Your task to perform on an android device: Open the calendar app, open the side menu, and click the "Day" option Image 0: 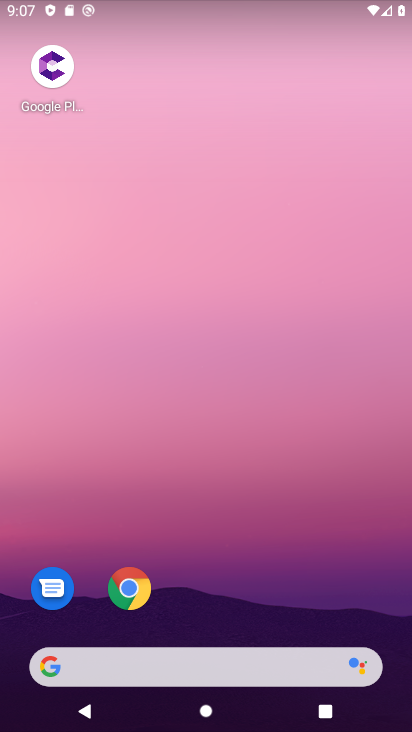
Step 0: drag from (245, 599) to (216, 103)
Your task to perform on an android device: Open the calendar app, open the side menu, and click the "Day" option Image 1: 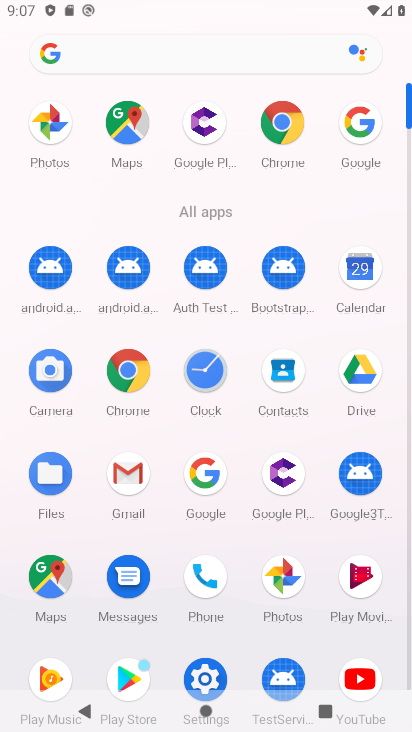
Step 1: click (362, 271)
Your task to perform on an android device: Open the calendar app, open the side menu, and click the "Day" option Image 2: 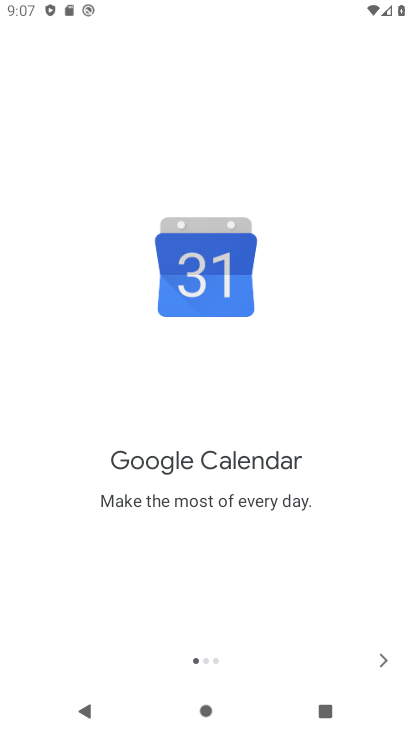
Step 2: click (384, 663)
Your task to perform on an android device: Open the calendar app, open the side menu, and click the "Day" option Image 3: 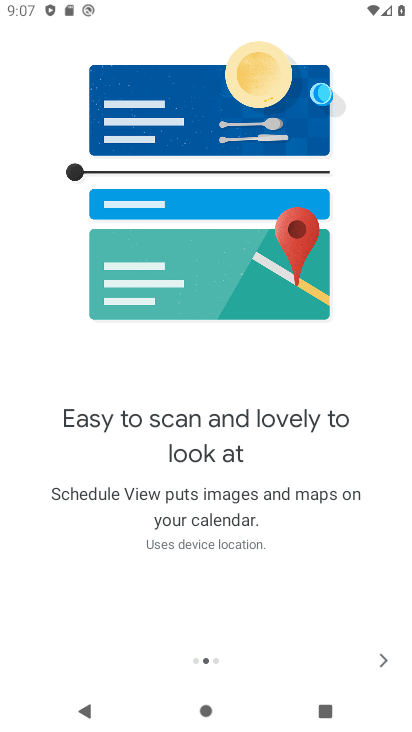
Step 3: click (384, 663)
Your task to perform on an android device: Open the calendar app, open the side menu, and click the "Day" option Image 4: 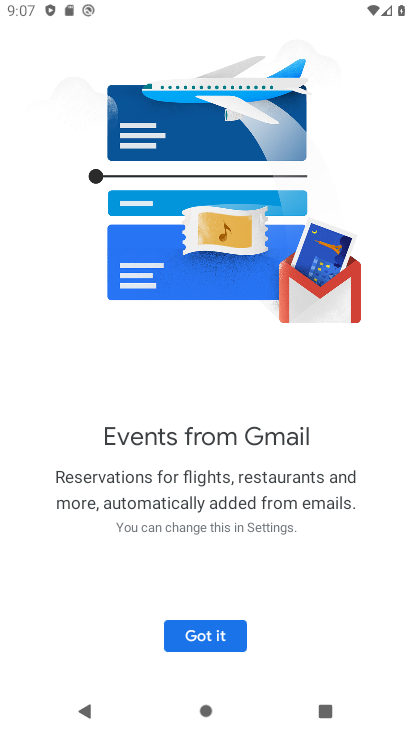
Step 4: click (205, 638)
Your task to perform on an android device: Open the calendar app, open the side menu, and click the "Day" option Image 5: 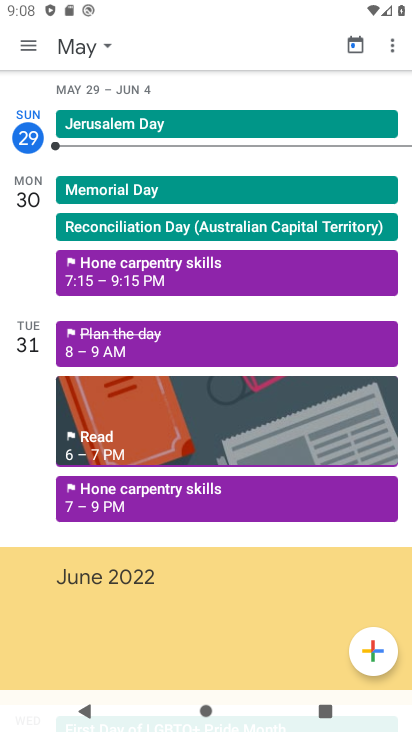
Step 5: click (27, 46)
Your task to perform on an android device: Open the calendar app, open the side menu, and click the "Day" option Image 6: 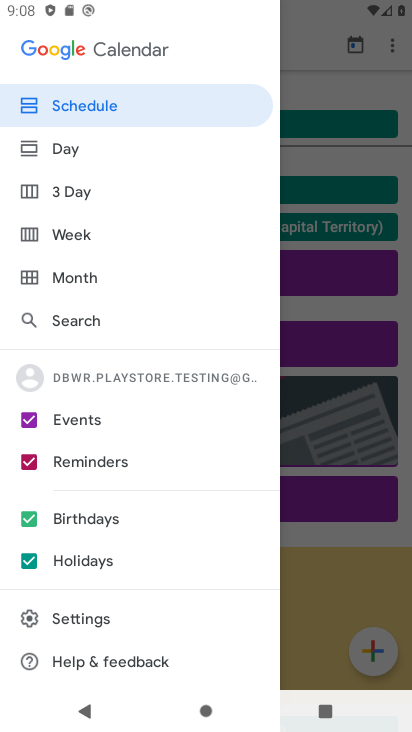
Step 6: click (69, 144)
Your task to perform on an android device: Open the calendar app, open the side menu, and click the "Day" option Image 7: 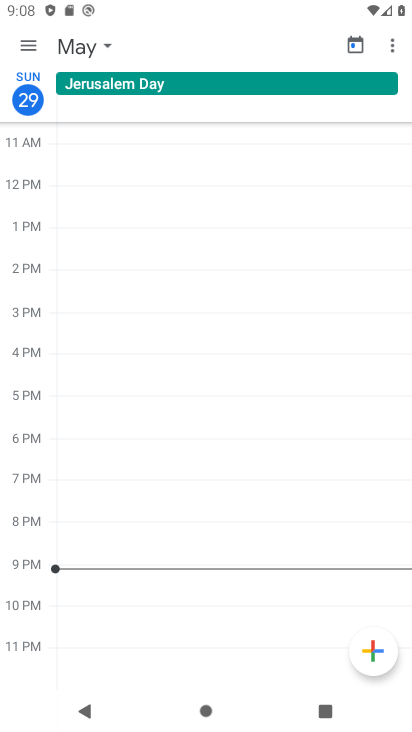
Step 7: task complete